Your task to perform on an android device: Go to Wikipedia Image 0: 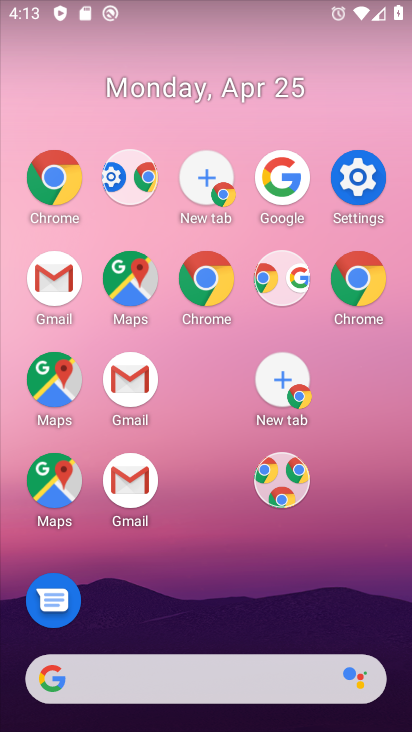
Step 0: drag from (253, 594) to (59, 0)
Your task to perform on an android device: Go to Wikipedia Image 1: 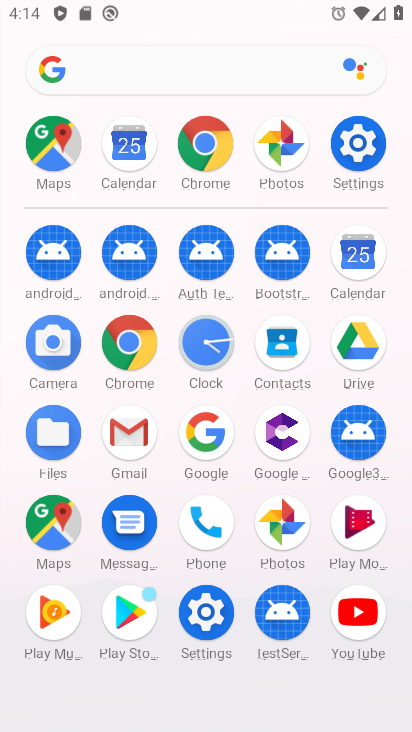
Step 1: click (194, 147)
Your task to perform on an android device: Go to Wikipedia Image 2: 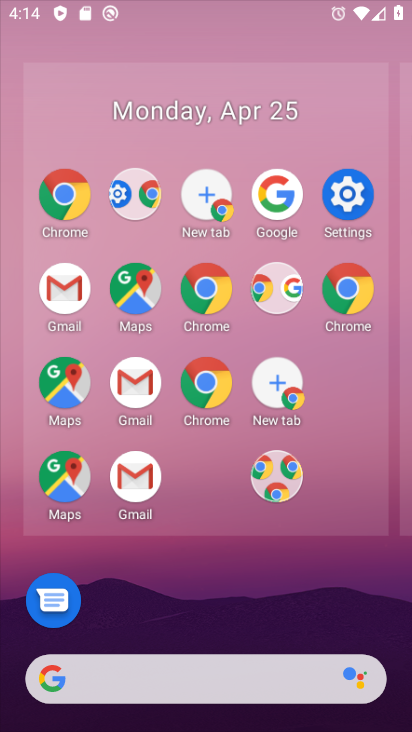
Step 2: click (208, 140)
Your task to perform on an android device: Go to Wikipedia Image 3: 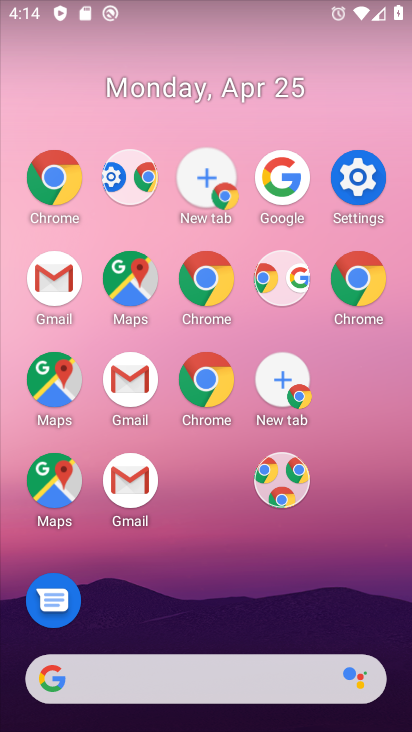
Step 3: drag from (109, 19) to (49, 37)
Your task to perform on an android device: Go to Wikipedia Image 4: 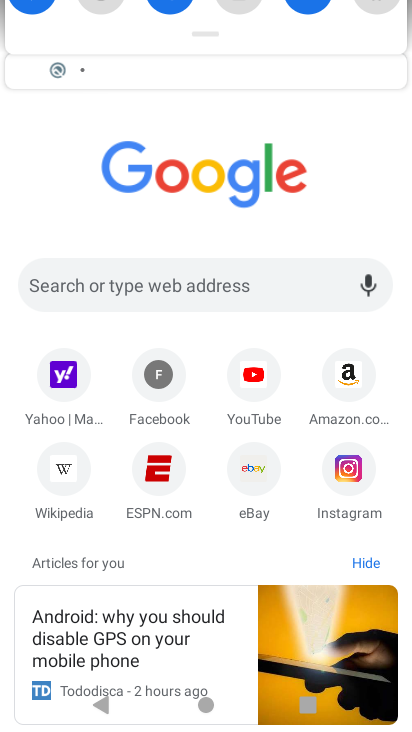
Step 4: click (55, 11)
Your task to perform on an android device: Go to Wikipedia Image 5: 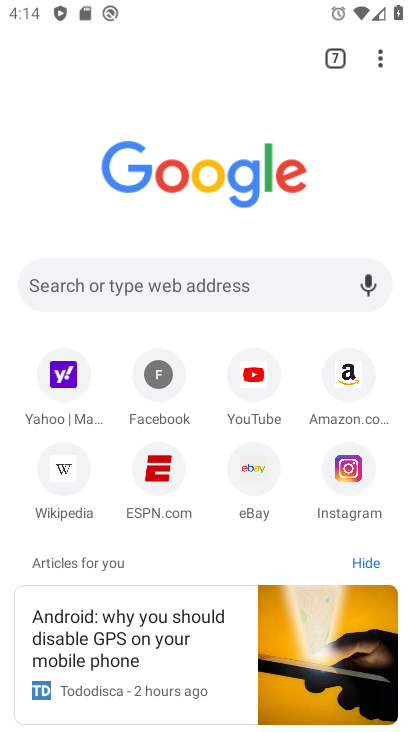
Step 5: click (74, 467)
Your task to perform on an android device: Go to Wikipedia Image 6: 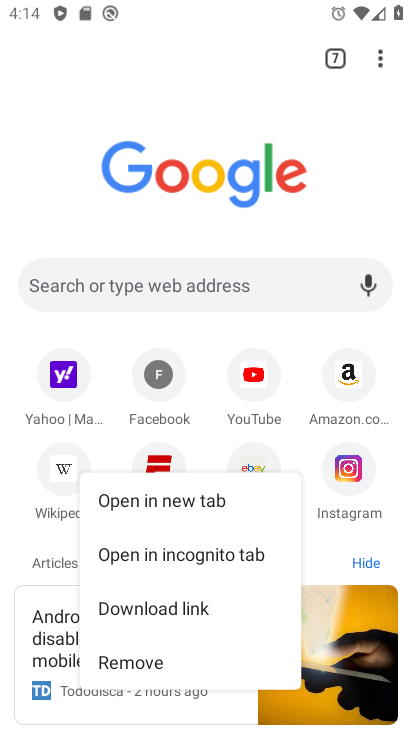
Step 6: click (60, 483)
Your task to perform on an android device: Go to Wikipedia Image 7: 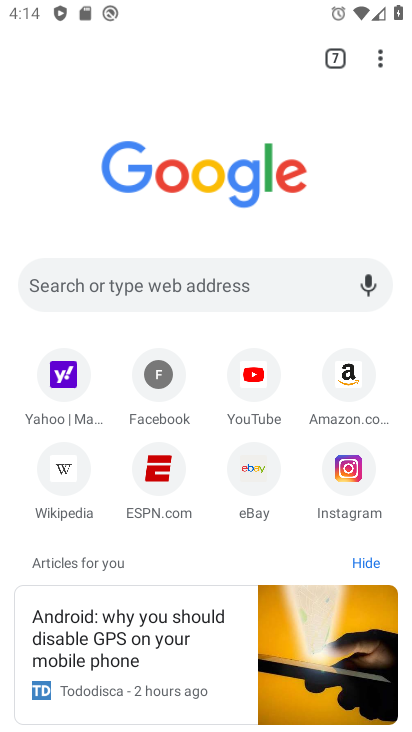
Step 7: click (49, 484)
Your task to perform on an android device: Go to Wikipedia Image 8: 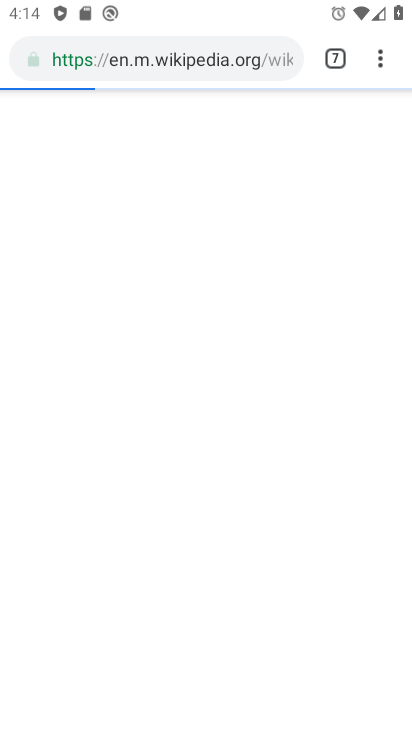
Step 8: click (49, 465)
Your task to perform on an android device: Go to Wikipedia Image 9: 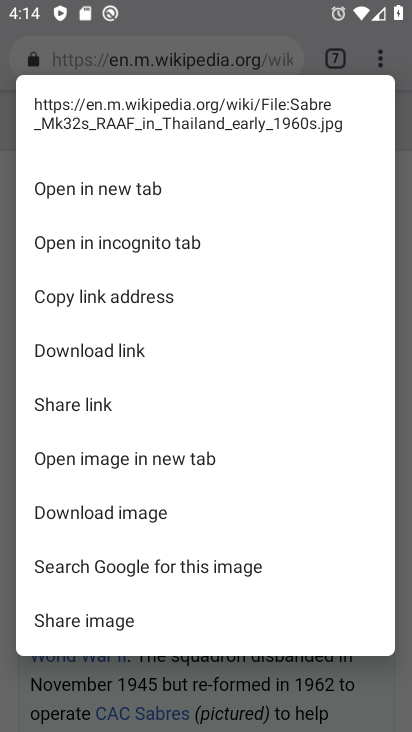
Step 9: click (124, 193)
Your task to perform on an android device: Go to Wikipedia Image 10: 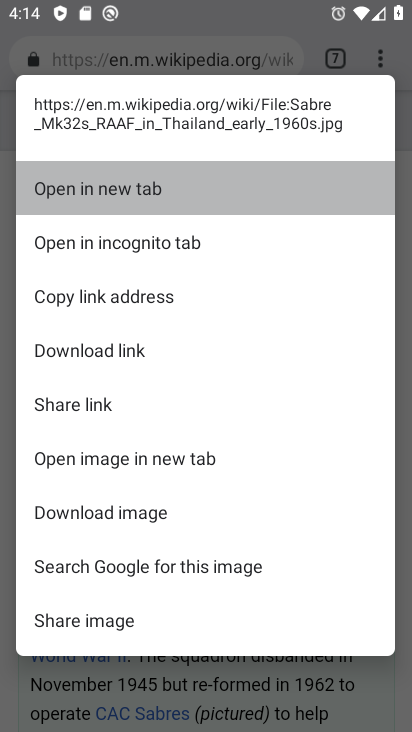
Step 10: task complete